Your task to perform on an android device: Add "lg ultragear" to the cart on ebay.com, then select checkout. Image 0: 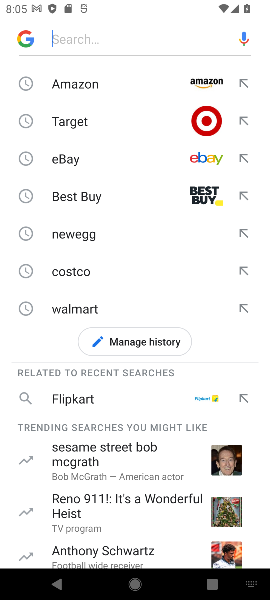
Step 0: click (150, 162)
Your task to perform on an android device: Add "lg ultragear" to the cart on ebay.com, then select checkout. Image 1: 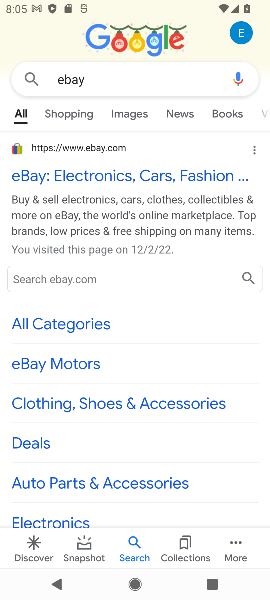
Step 1: click (124, 185)
Your task to perform on an android device: Add "lg ultragear" to the cart on ebay.com, then select checkout. Image 2: 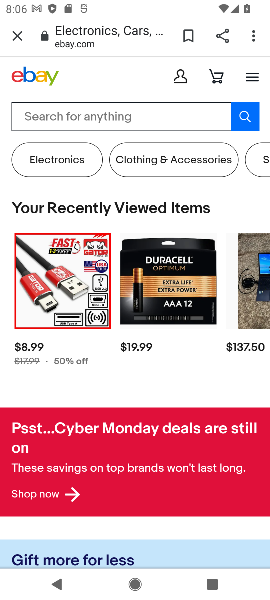
Step 2: task complete